Your task to perform on an android device: Open the calendar and show me this week's events? Image 0: 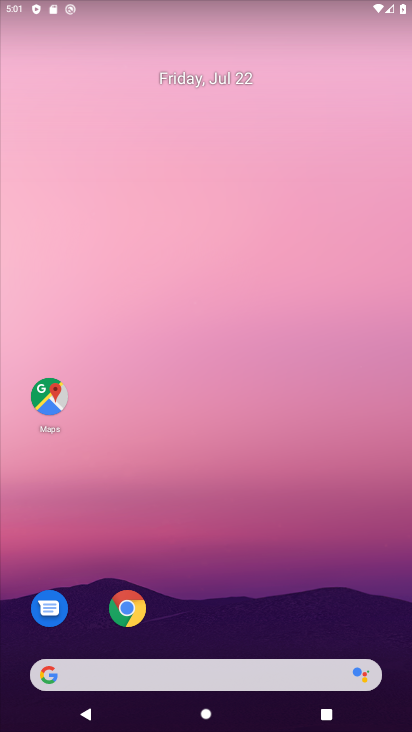
Step 0: click (234, 87)
Your task to perform on an android device: Open the calendar and show me this week's events? Image 1: 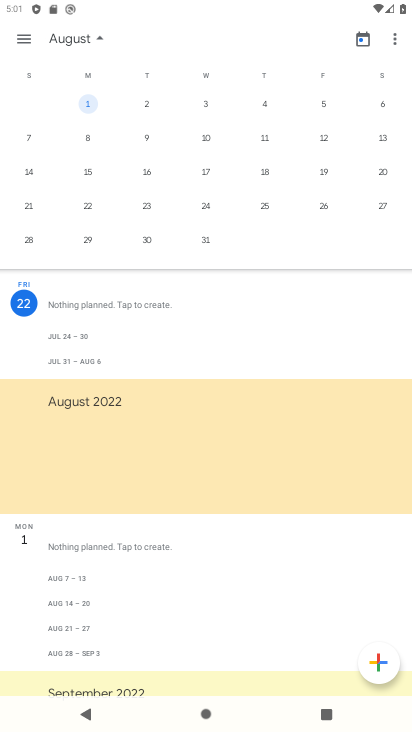
Step 1: click (34, 44)
Your task to perform on an android device: Open the calendar and show me this week's events? Image 2: 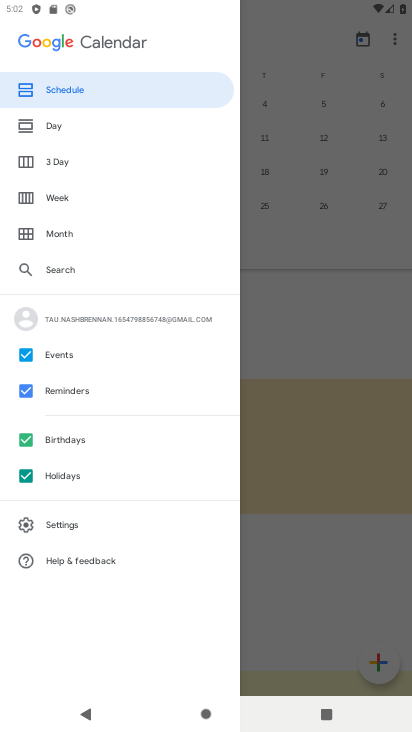
Step 2: click (25, 384)
Your task to perform on an android device: Open the calendar and show me this week's events? Image 3: 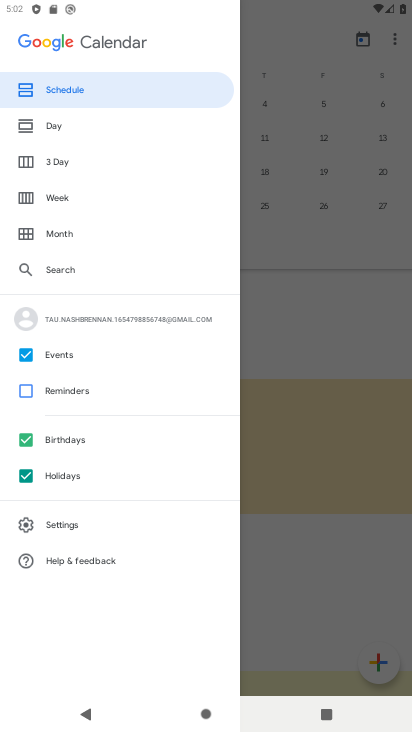
Step 3: click (24, 440)
Your task to perform on an android device: Open the calendar and show me this week's events? Image 4: 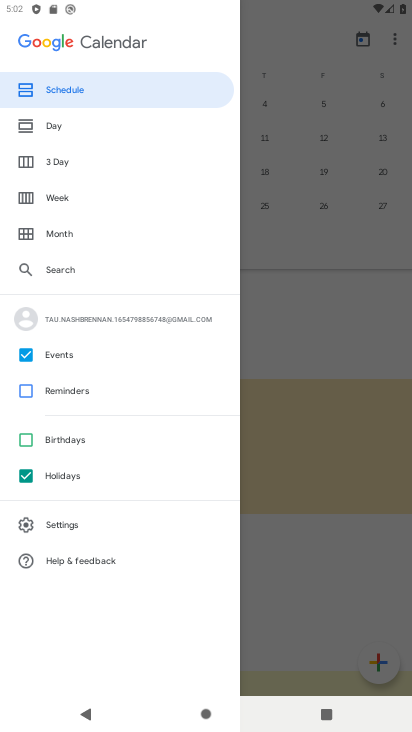
Step 4: click (21, 472)
Your task to perform on an android device: Open the calendar and show me this week's events? Image 5: 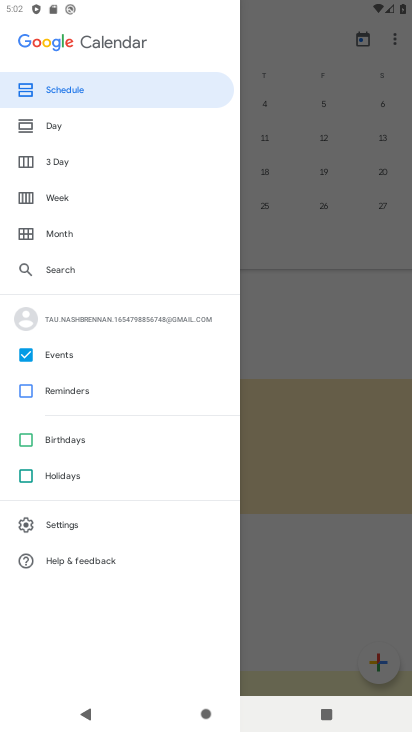
Step 5: click (23, 198)
Your task to perform on an android device: Open the calendar and show me this week's events? Image 6: 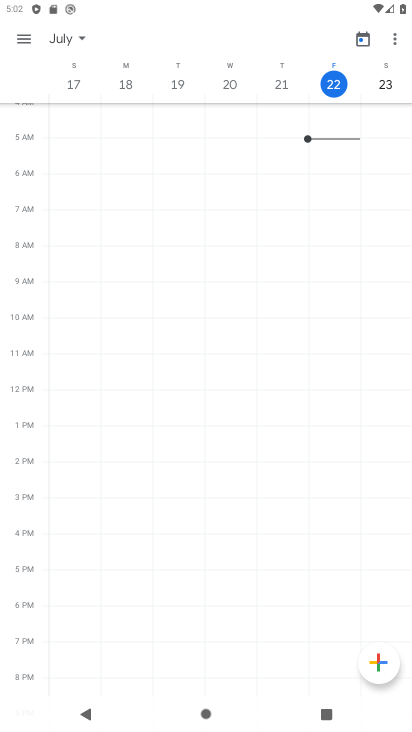
Step 6: task complete